Your task to perform on an android device: What's the weather? Image 0: 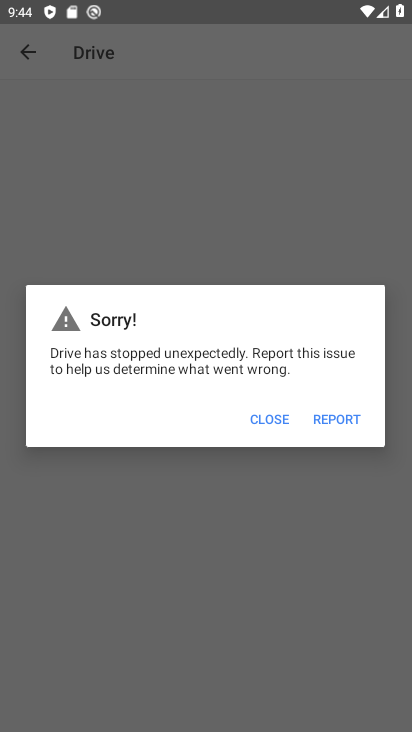
Step 0: press home button
Your task to perform on an android device: What's the weather? Image 1: 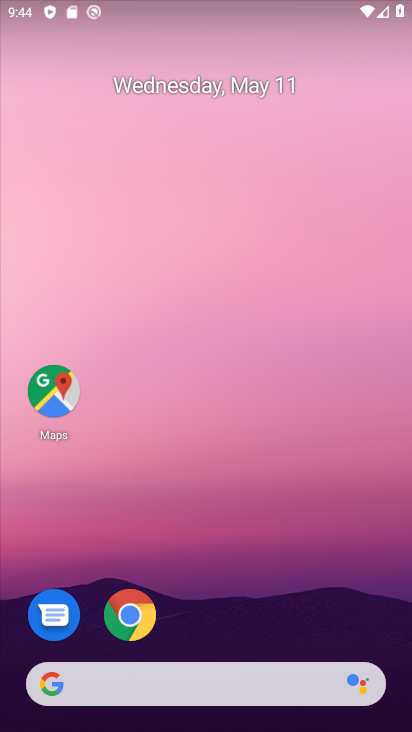
Step 1: drag from (215, 613) to (230, 141)
Your task to perform on an android device: What's the weather? Image 2: 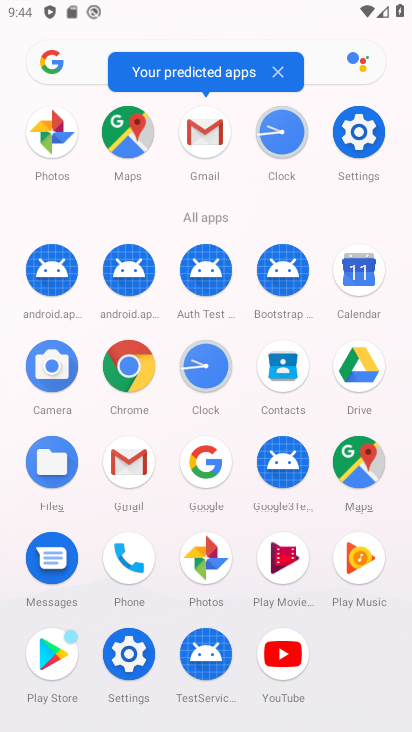
Step 2: click (202, 463)
Your task to perform on an android device: What's the weather? Image 3: 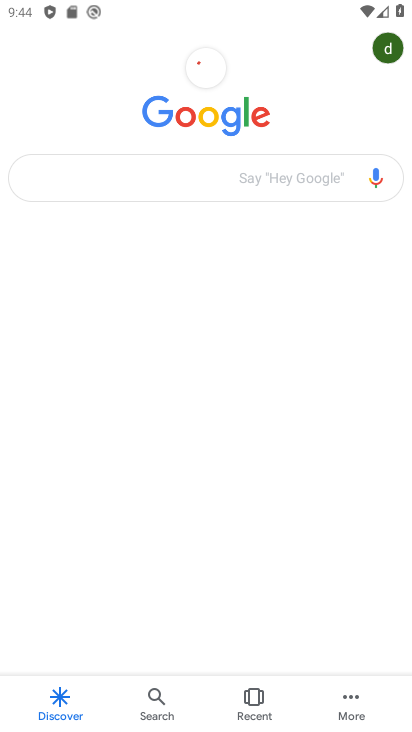
Step 3: click (196, 166)
Your task to perform on an android device: What's the weather? Image 4: 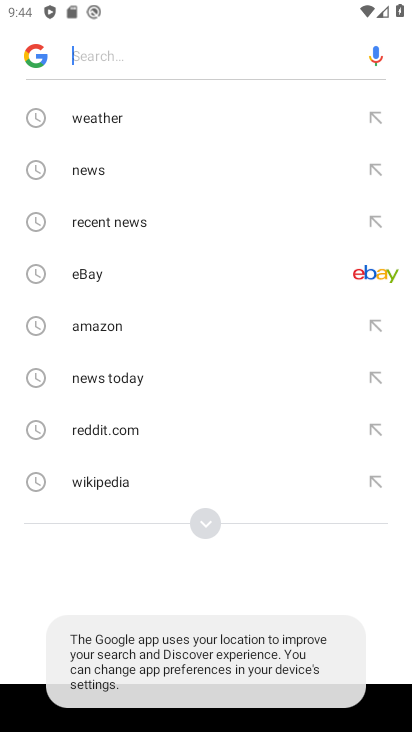
Step 4: click (116, 120)
Your task to perform on an android device: What's the weather? Image 5: 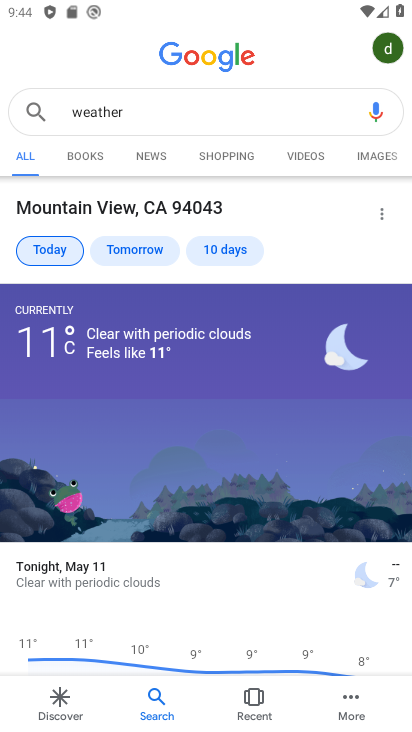
Step 5: task complete